Your task to perform on an android device: move a message to another label in the gmail app Image 0: 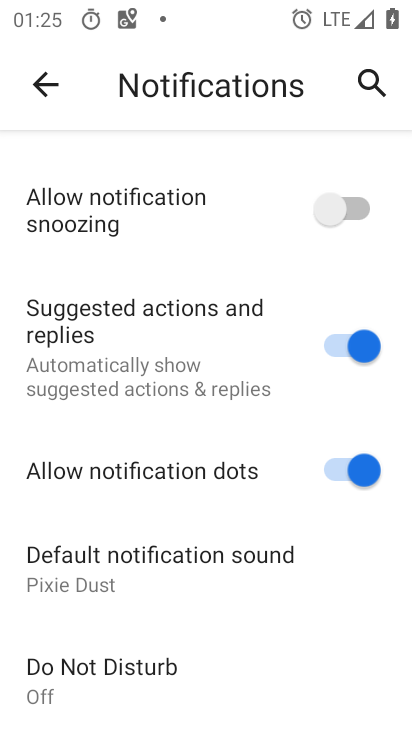
Step 0: press home button
Your task to perform on an android device: move a message to another label in the gmail app Image 1: 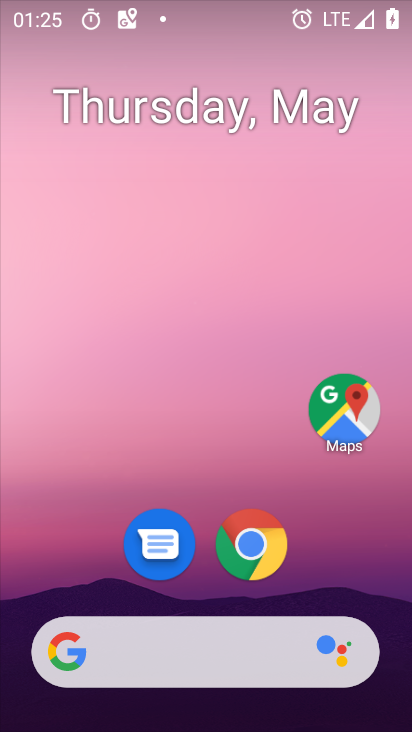
Step 1: drag from (386, 594) to (372, 183)
Your task to perform on an android device: move a message to another label in the gmail app Image 2: 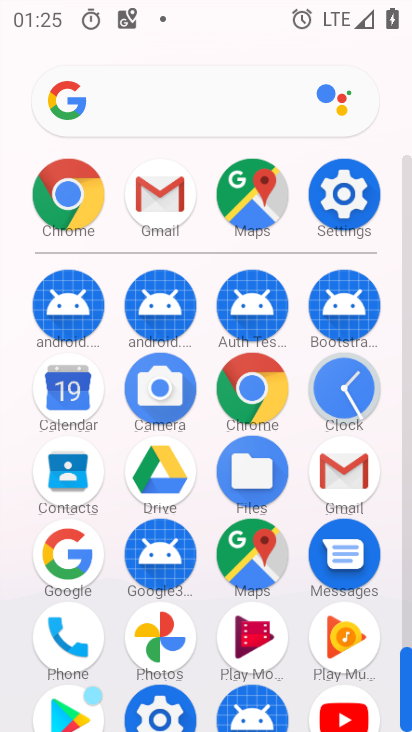
Step 2: click (354, 482)
Your task to perform on an android device: move a message to another label in the gmail app Image 3: 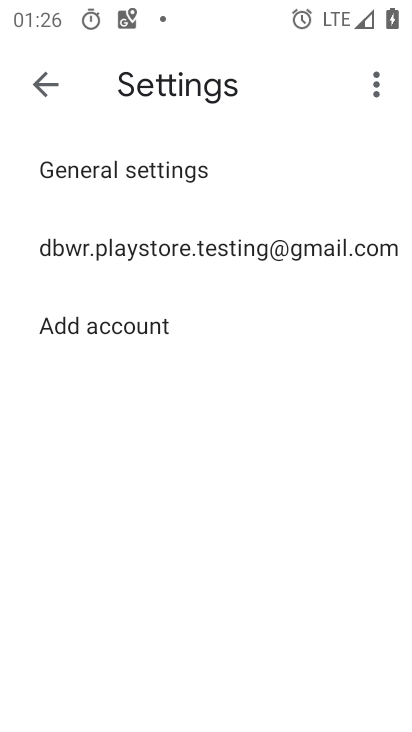
Step 3: click (48, 86)
Your task to perform on an android device: move a message to another label in the gmail app Image 4: 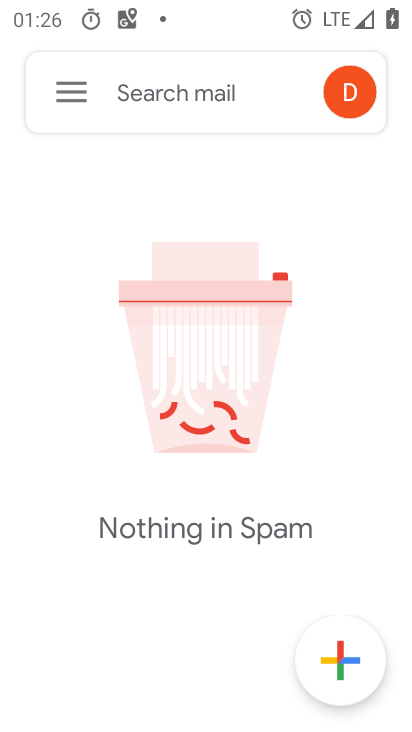
Step 4: click (68, 94)
Your task to perform on an android device: move a message to another label in the gmail app Image 5: 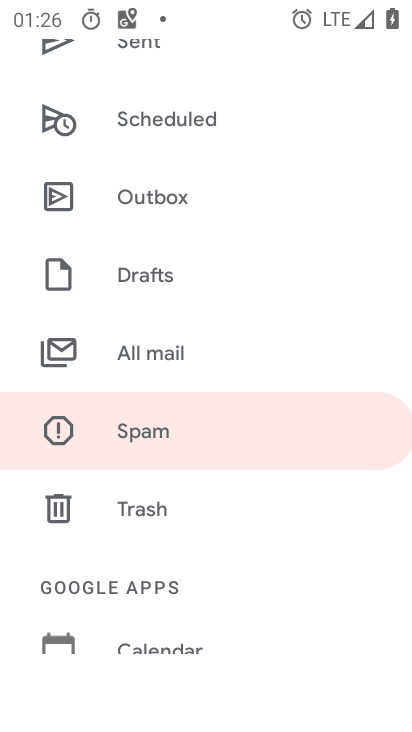
Step 5: drag from (269, 584) to (280, 331)
Your task to perform on an android device: move a message to another label in the gmail app Image 6: 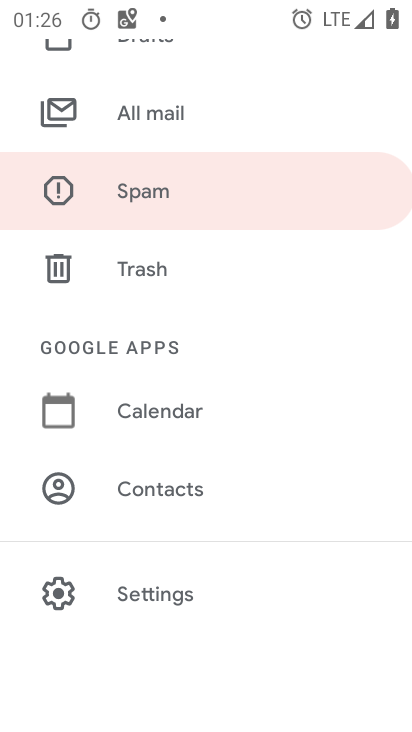
Step 6: drag from (279, 558) to (282, 328)
Your task to perform on an android device: move a message to another label in the gmail app Image 7: 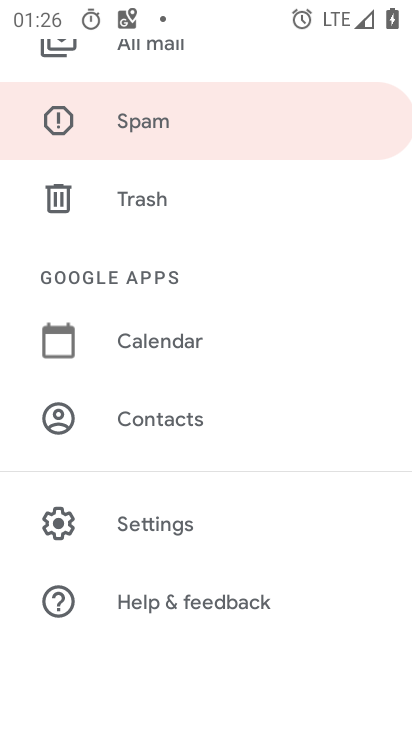
Step 7: drag from (284, 239) to (286, 472)
Your task to perform on an android device: move a message to another label in the gmail app Image 8: 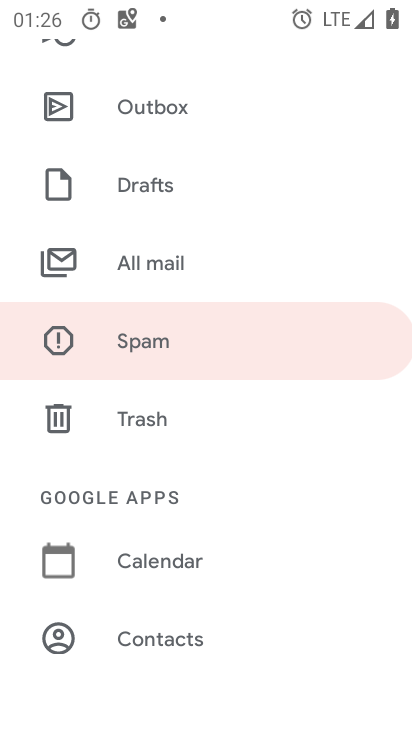
Step 8: drag from (263, 193) to (265, 396)
Your task to perform on an android device: move a message to another label in the gmail app Image 9: 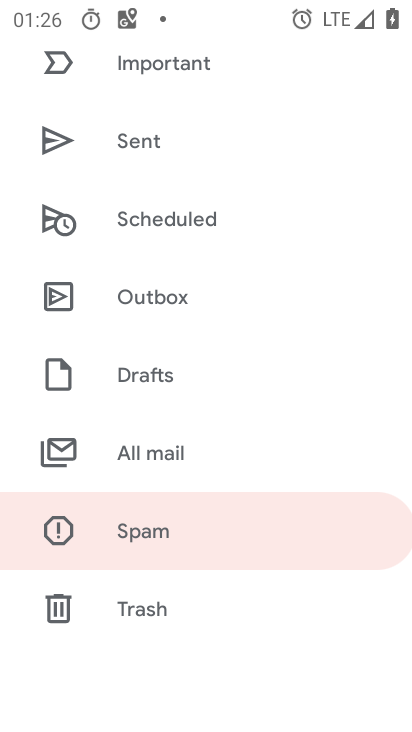
Step 9: drag from (288, 183) to (286, 398)
Your task to perform on an android device: move a message to another label in the gmail app Image 10: 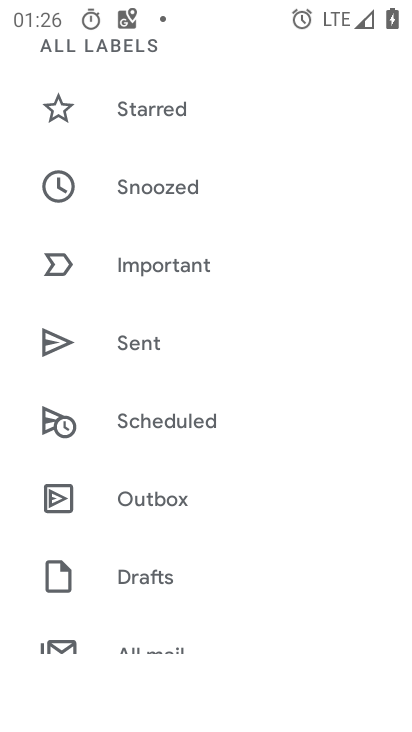
Step 10: drag from (269, 168) to (269, 391)
Your task to perform on an android device: move a message to another label in the gmail app Image 11: 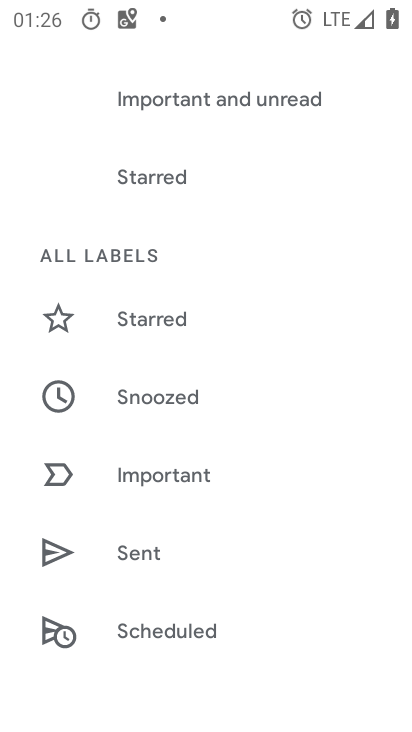
Step 11: drag from (256, 158) to (268, 339)
Your task to perform on an android device: move a message to another label in the gmail app Image 12: 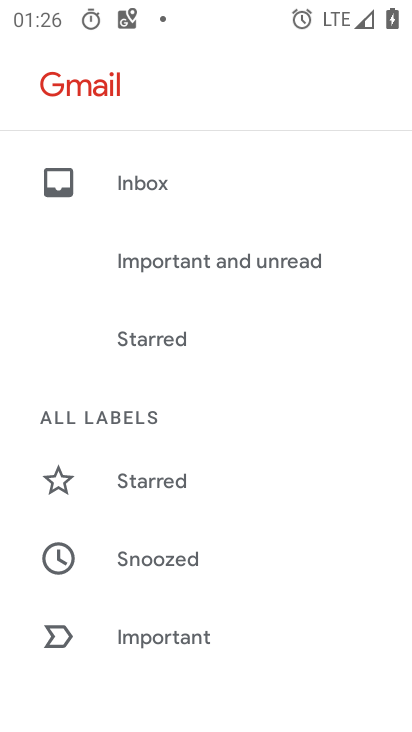
Step 12: drag from (238, 173) to (238, 343)
Your task to perform on an android device: move a message to another label in the gmail app Image 13: 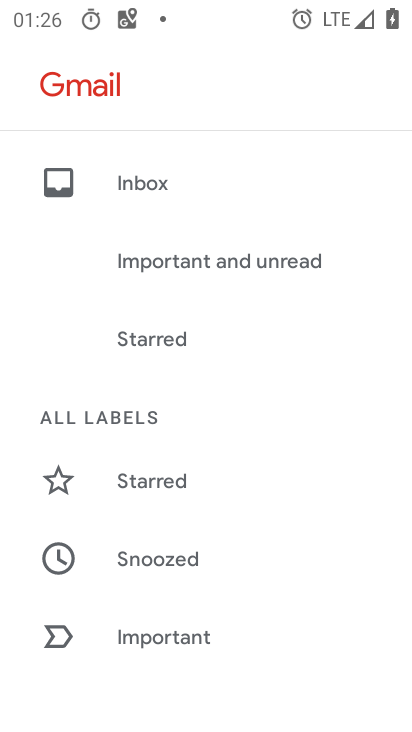
Step 13: click (158, 192)
Your task to perform on an android device: move a message to another label in the gmail app Image 14: 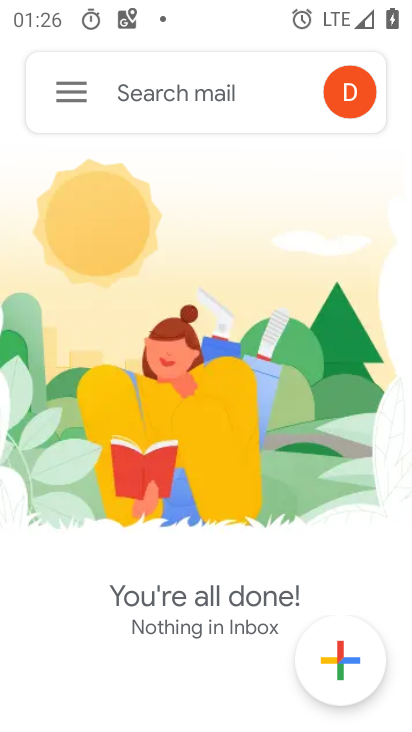
Step 14: task complete